Your task to perform on an android device: find which apps use the phone's location Image 0: 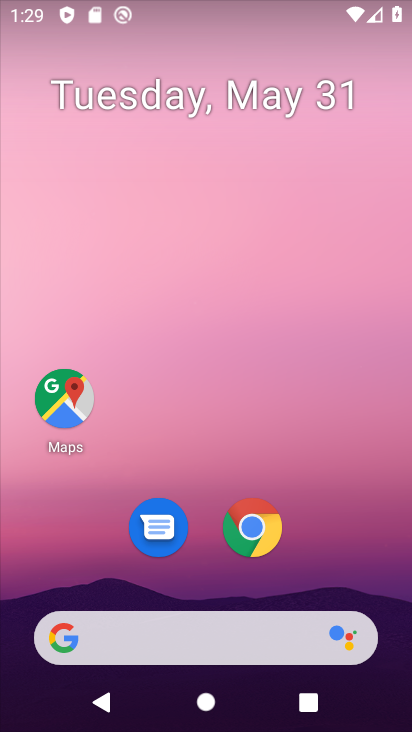
Step 0: drag from (345, 528) to (357, 70)
Your task to perform on an android device: find which apps use the phone's location Image 1: 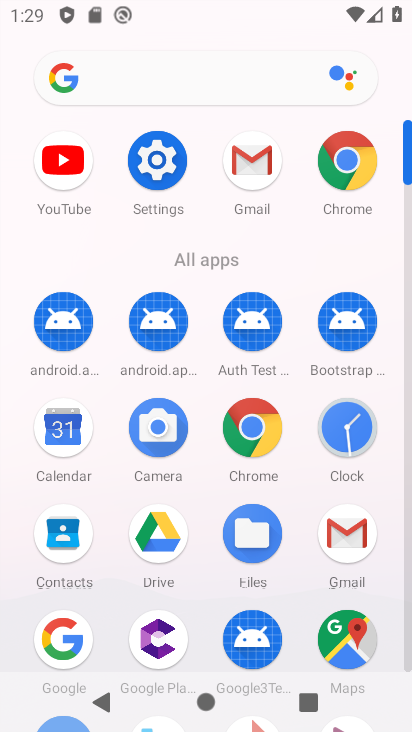
Step 1: click (151, 157)
Your task to perform on an android device: find which apps use the phone's location Image 2: 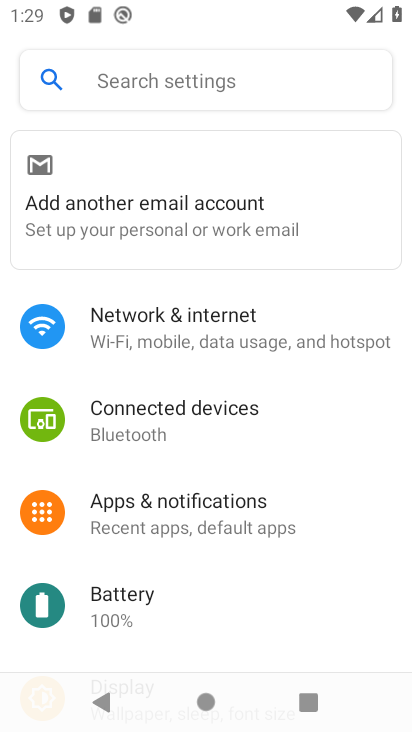
Step 2: drag from (240, 526) to (242, 164)
Your task to perform on an android device: find which apps use the phone's location Image 3: 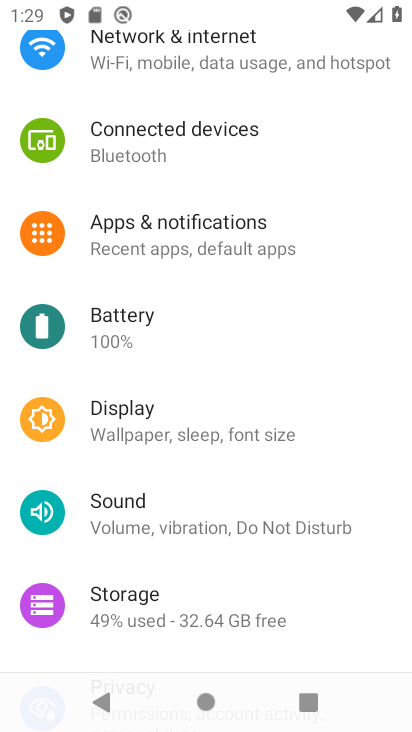
Step 3: drag from (201, 536) to (261, 226)
Your task to perform on an android device: find which apps use the phone's location Image 4: 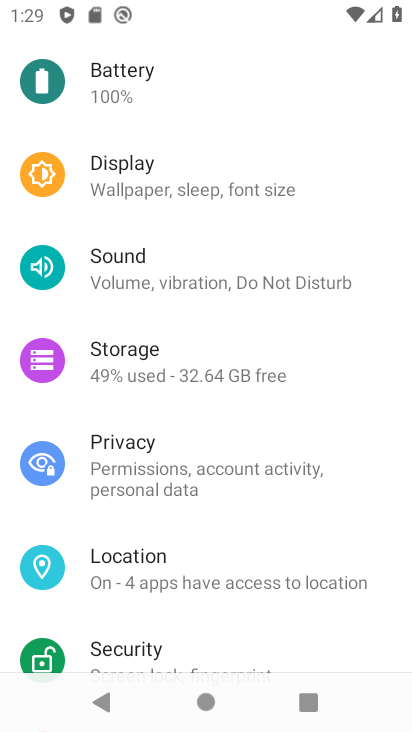
Step 4: click (218, 570)
Your task to perform on an android device: find which apps use the phone's location Image 5: 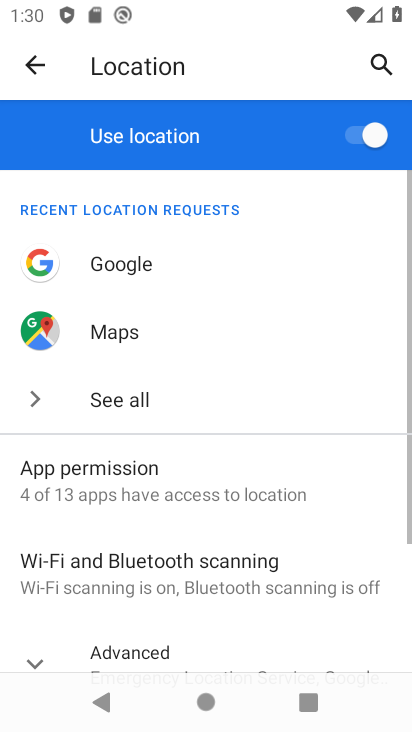
Step 5: click (78, 491)
Your task to perform on an android device: find which apps use the phone's location Image 6: 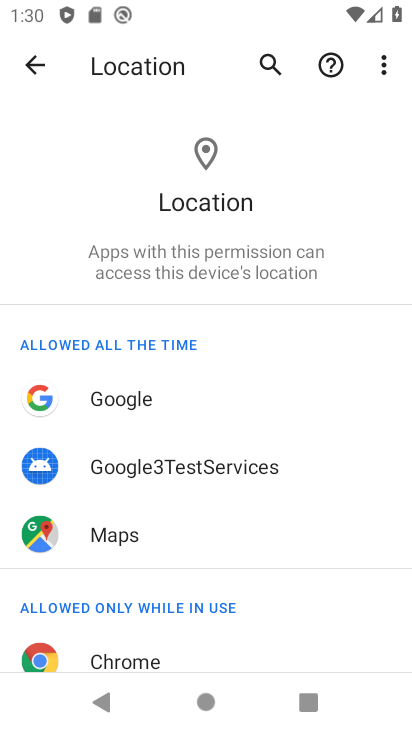
Step 6: task complete